Your task to perform on an android device: Go to accessibility settings Image 0: 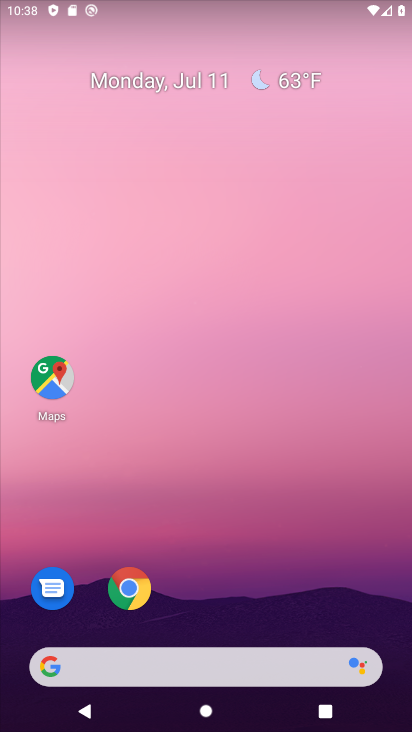
Step 0: drag from (237, 724) to (237, 287)
Your task to perform on an android device: Go to accessibility settings Image 1: 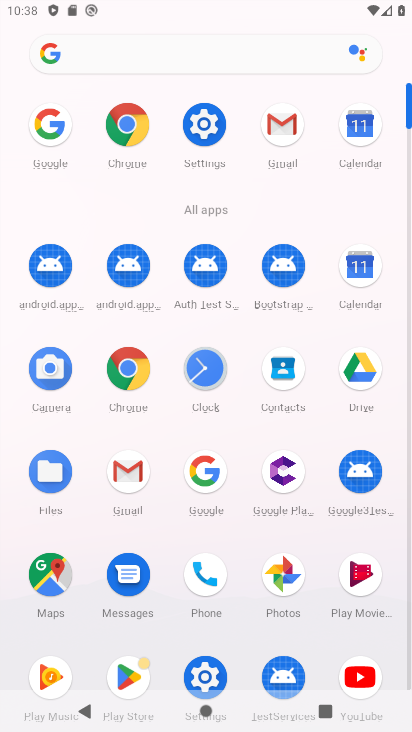
Step 1: click (203, 125)
Your task to perform on an android device: Go to accessibility settings Image 2: 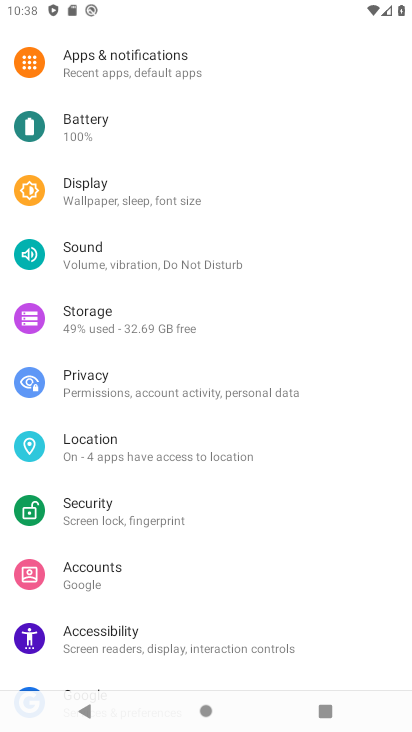
Step 2: click (97, 640)
Your task to perform on an android device: Go to accessibility settings Image 3: 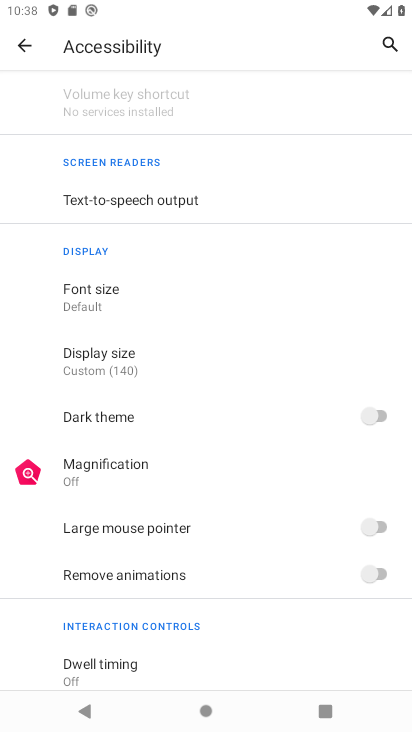
Step 3: task complete